Your task to perform on an android device: Clear the shopping cart on newegg. Add razer blade to the cart on newegg, then select checkout. Image 0: 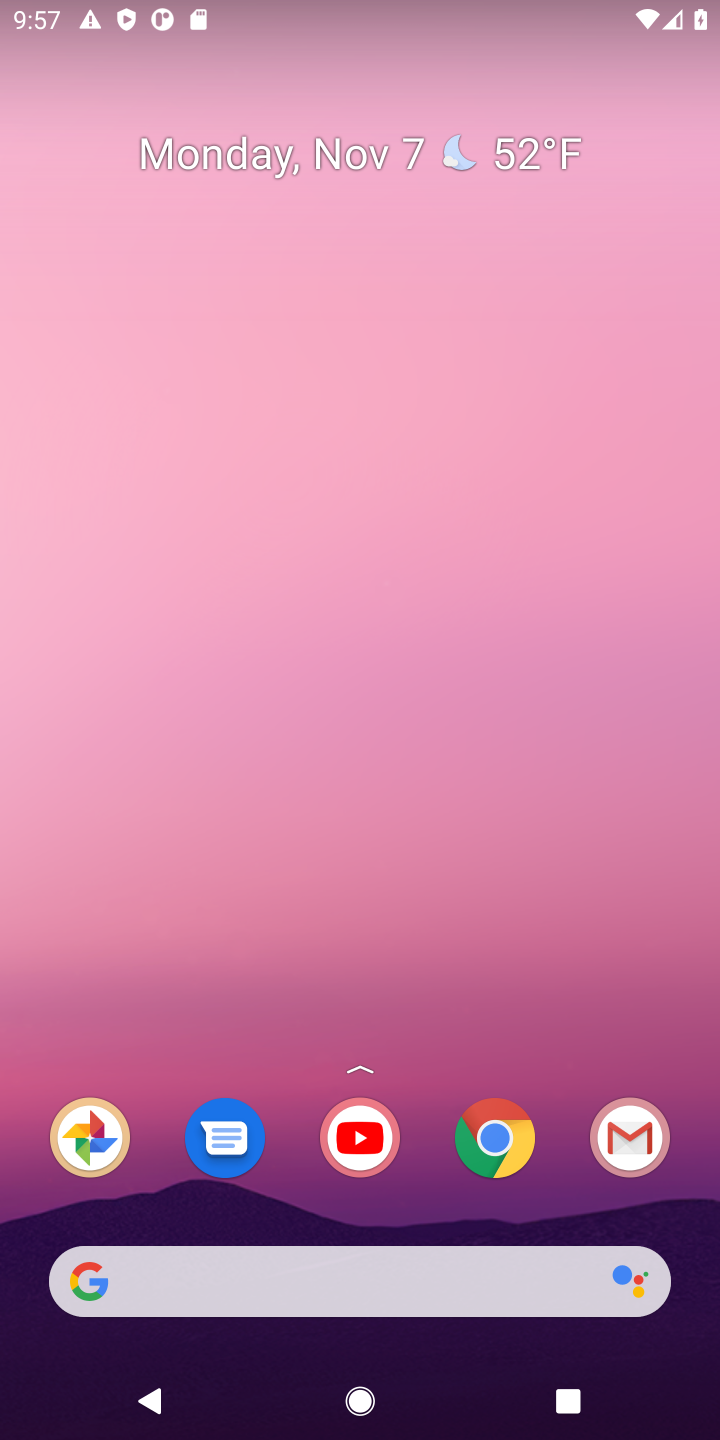
Step 0: drag from (432, 1210) to (357, 222)
Your task to perform on an android device: Clear the shopping cart on newegg. Add razer blade to the cart on newegg, then select checkout. Image 1: 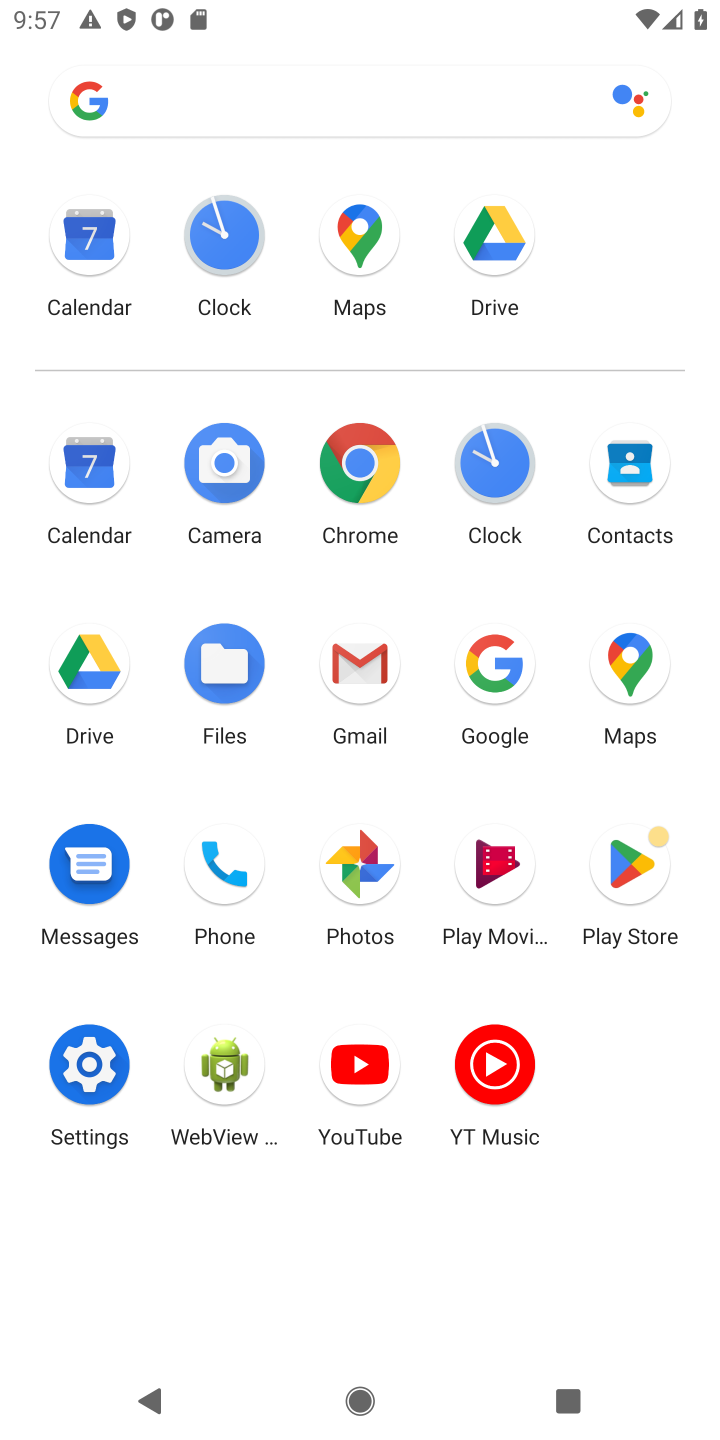
Step 1: click (356, 467)
Your task to perform on an android device: Clear the shopping cart on newegg. Add razer blade to the cart on newegg, then select checkout. Image 2: 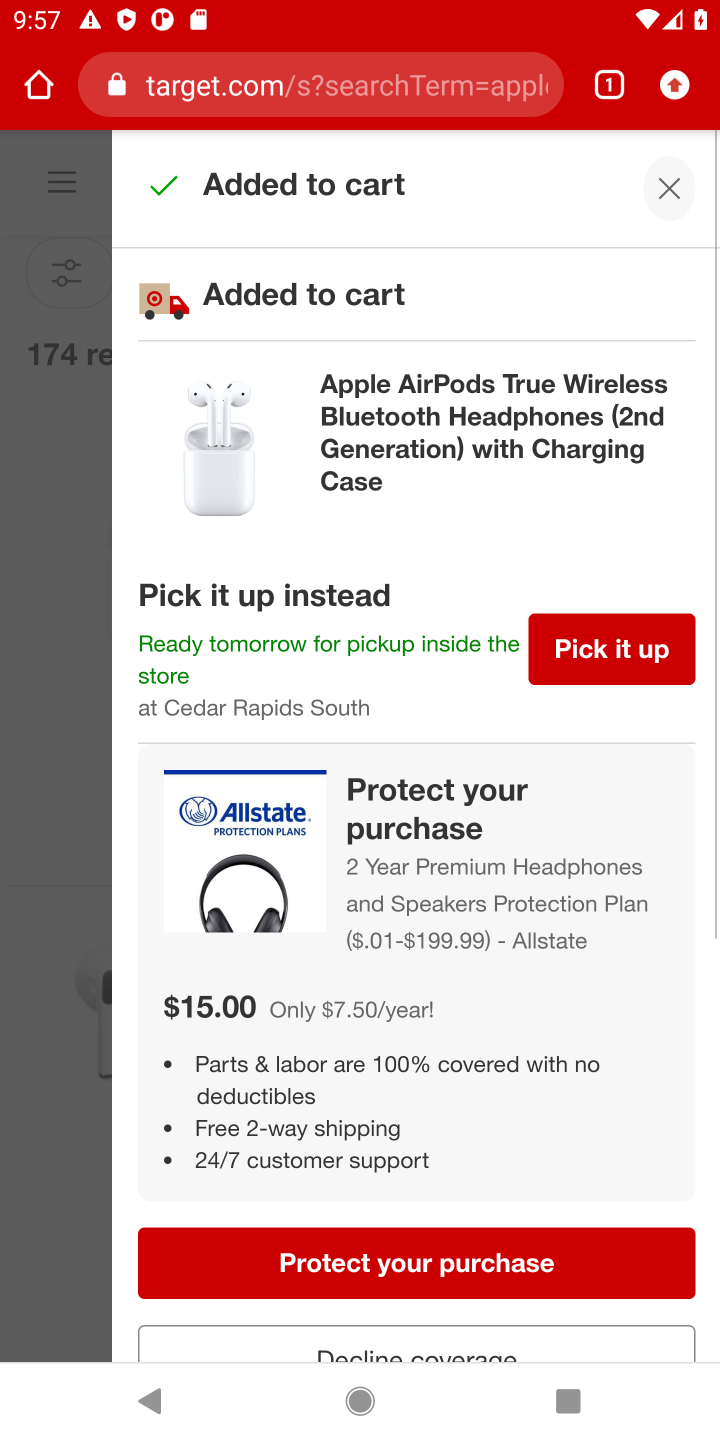
Step 2: click (398, 80)
Your task to perform on an android device: Clear the shopping cart on newegg. Add razer blade to the cart on newegg, then select checkout. Image 3: 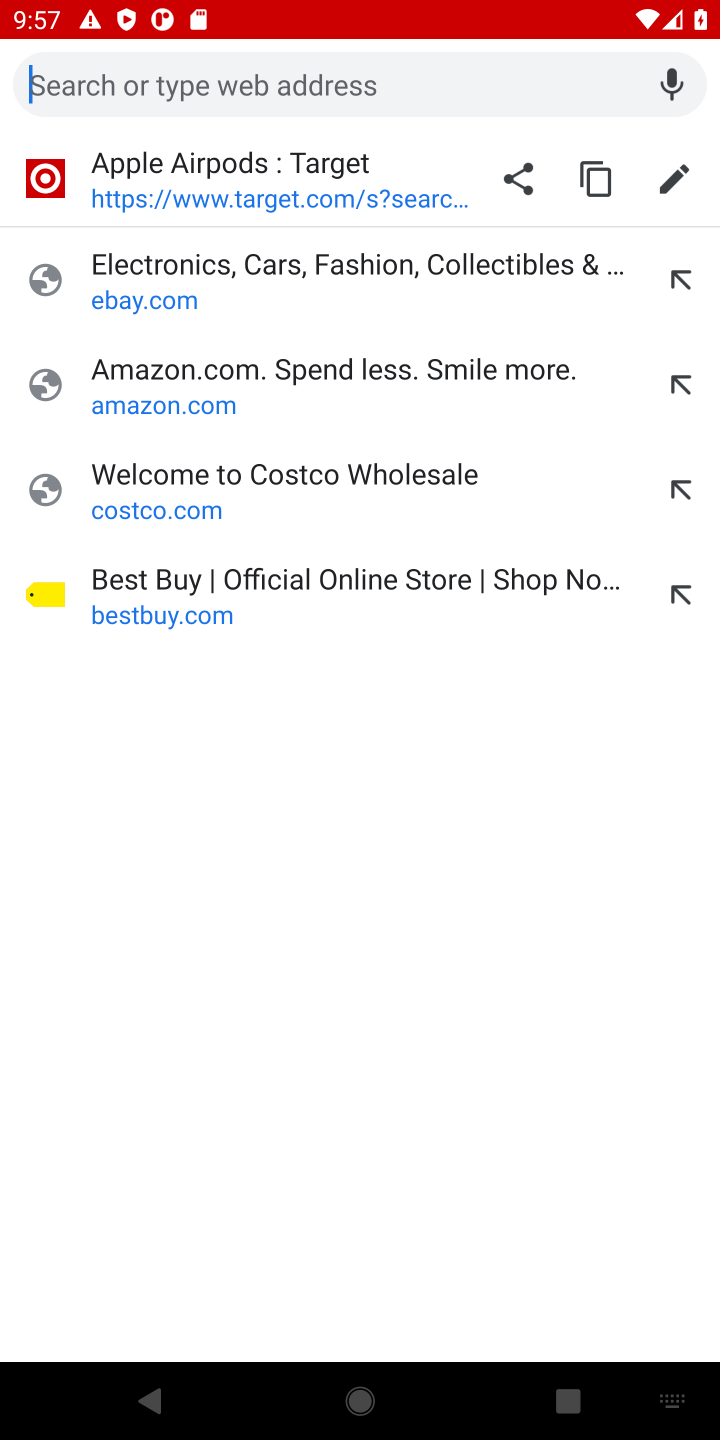
Step 3: type "newegg.com"
Your task to perform on an android device: Clear the shopping cart on newegg. Add razer blade to the cart on newegg, then select checkout. Image 4: 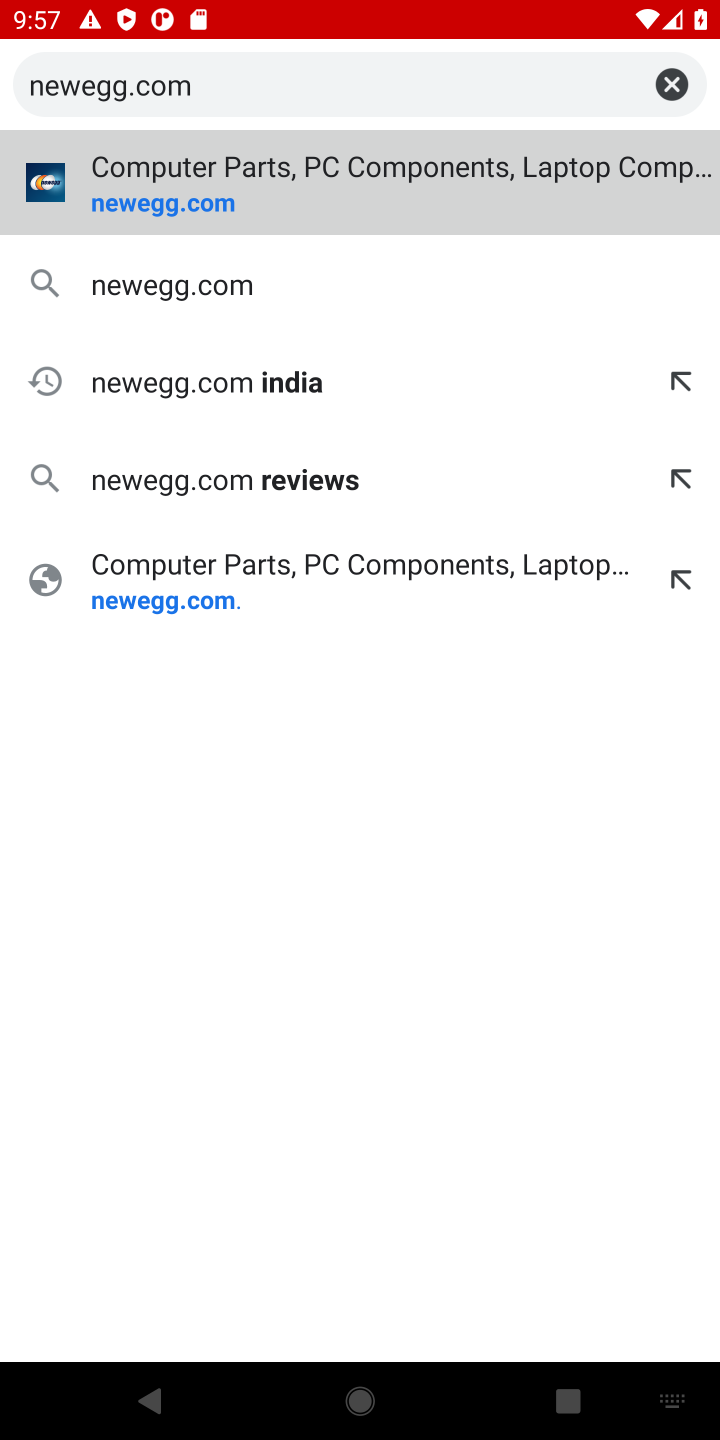
Step 4: press enter
Your task to perform on an android device: Clear the shopping cart on newegg. Add razer blade to the cart on newegg, then select checkout. Image 5: 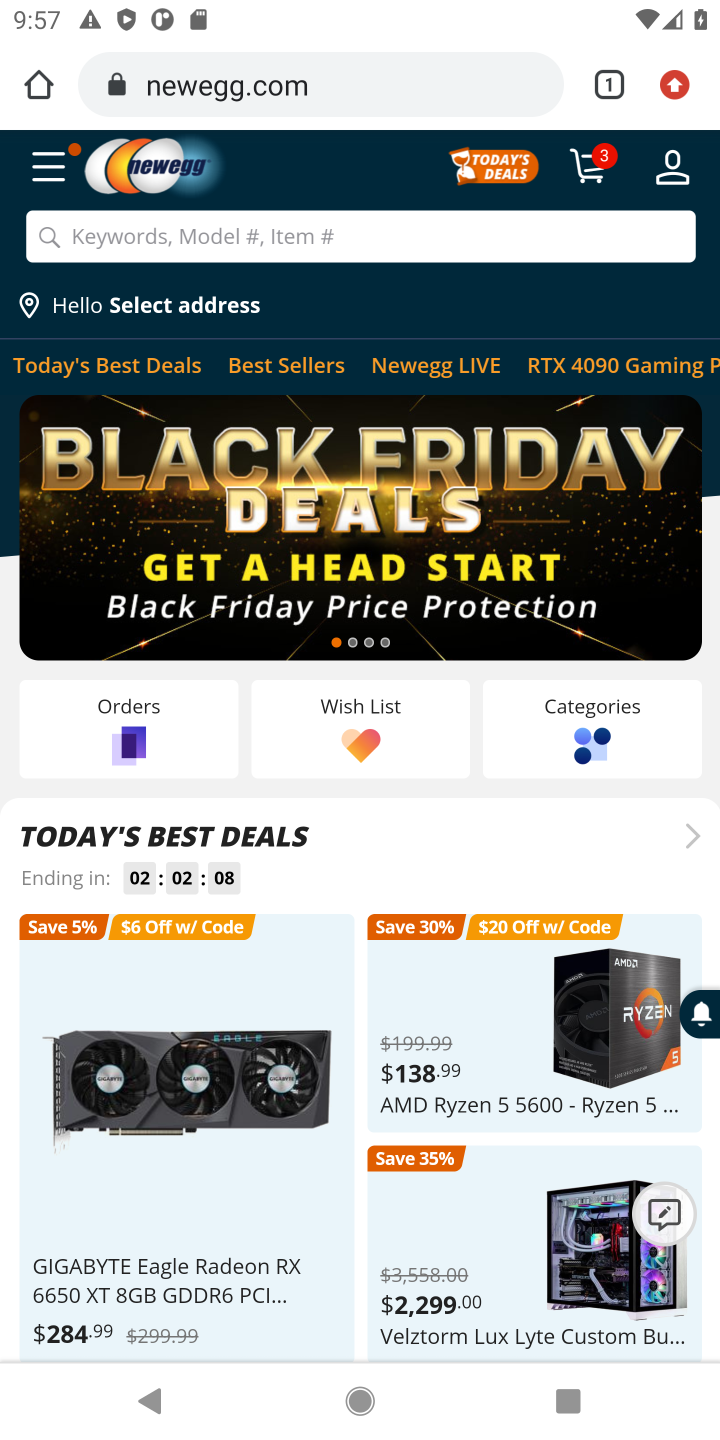
Step 5: click (615, 162)
Your task to perform on an android device: Clear the shopping cart on newegg. Add razer blade to the cart on newegg, then select checkout. Image 6: 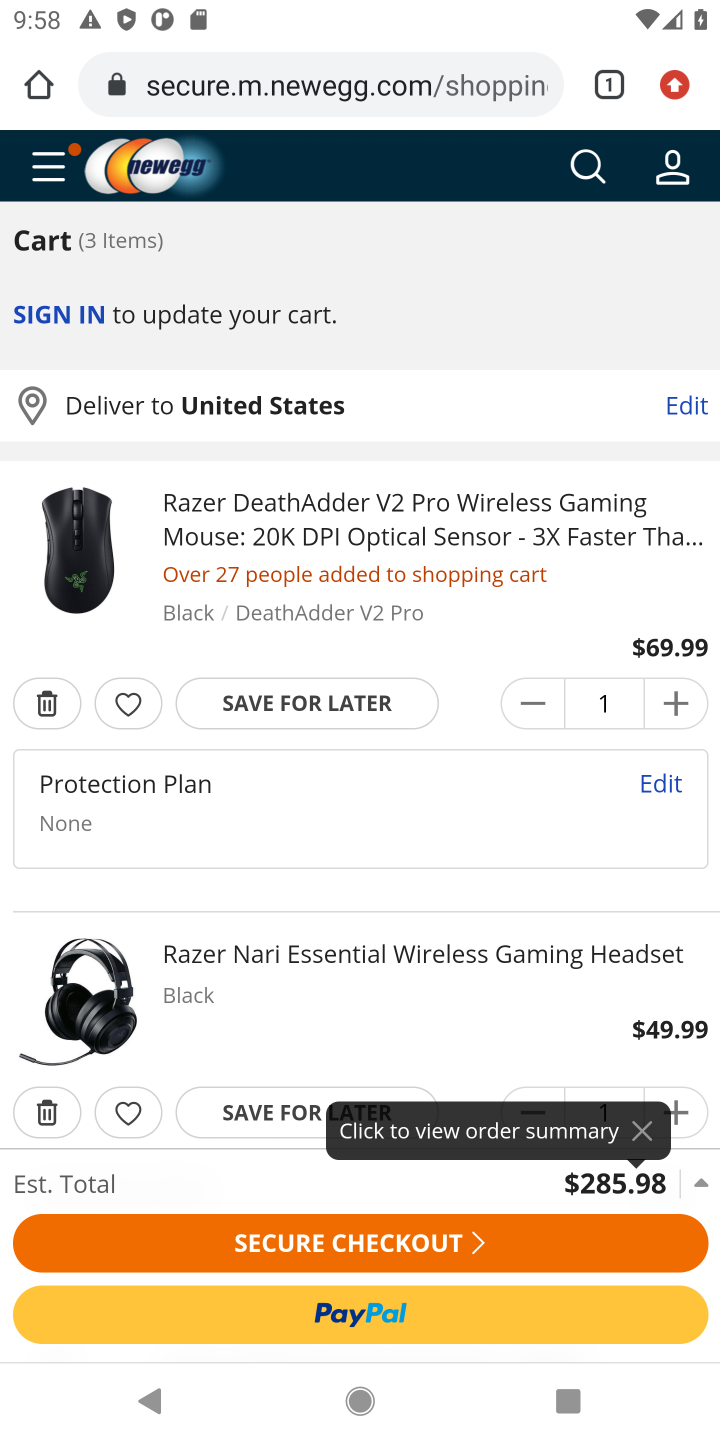
Step 6: click (50, 708)
Your task to perform on an android device: Clear the shopping cart on newegg. Add razer blade to the cart on newegg, then select checkout. Image 7: 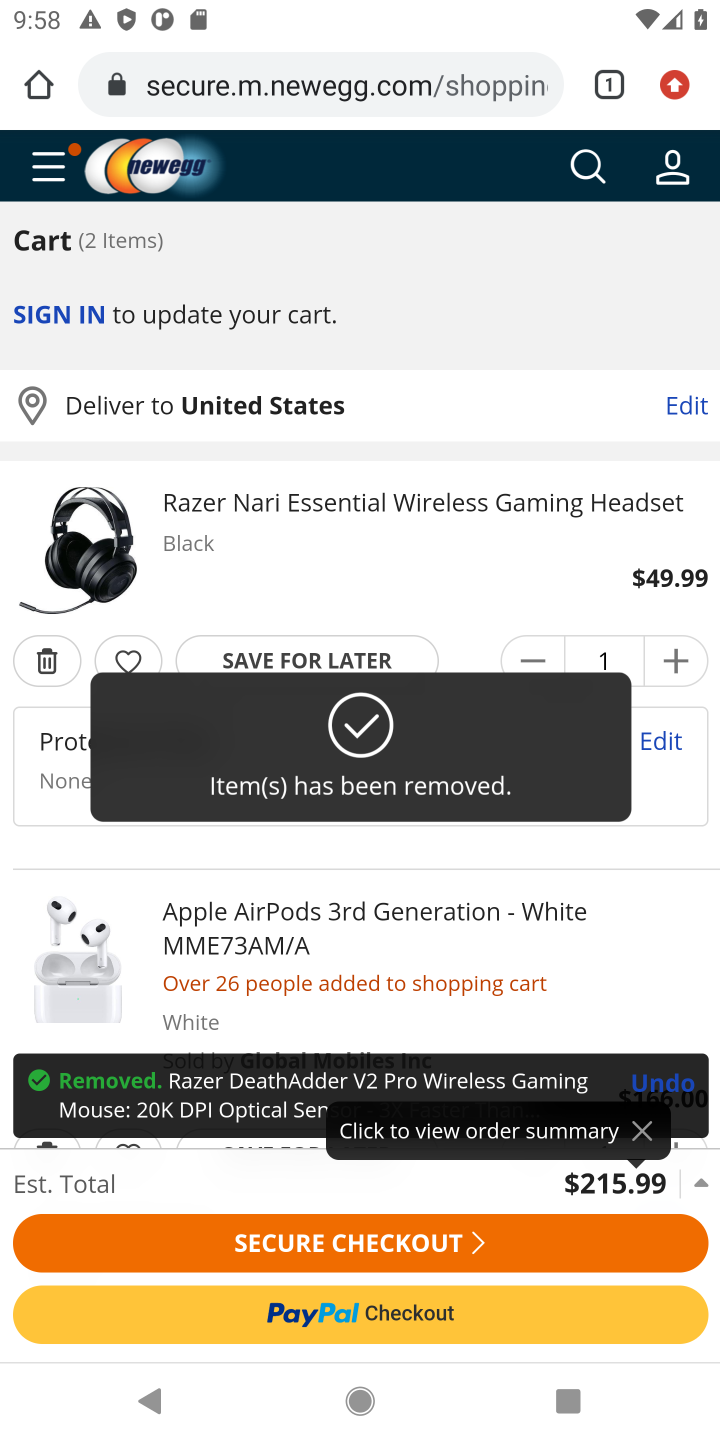
Step 7: click (42, 652)
Your task to perform on an android device: Clear the shopping cart on newegg. Add razer blade to the cart on newegg, then select checkout. Image 8: 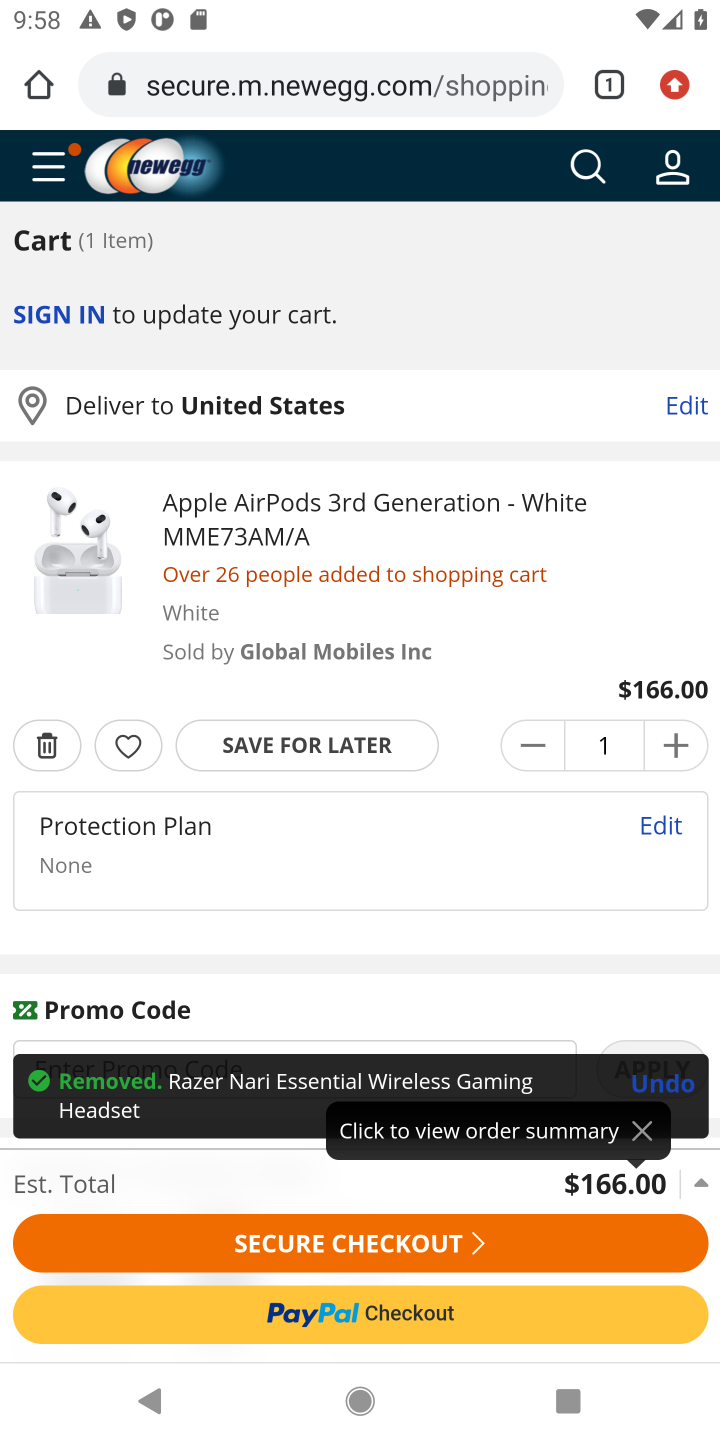
Step 8: click (55, 739)
Your task to perform on an android device: Clear the shopping cart on newegg. Add razer blade to the cart on newegg, then select checkout. Image 9: 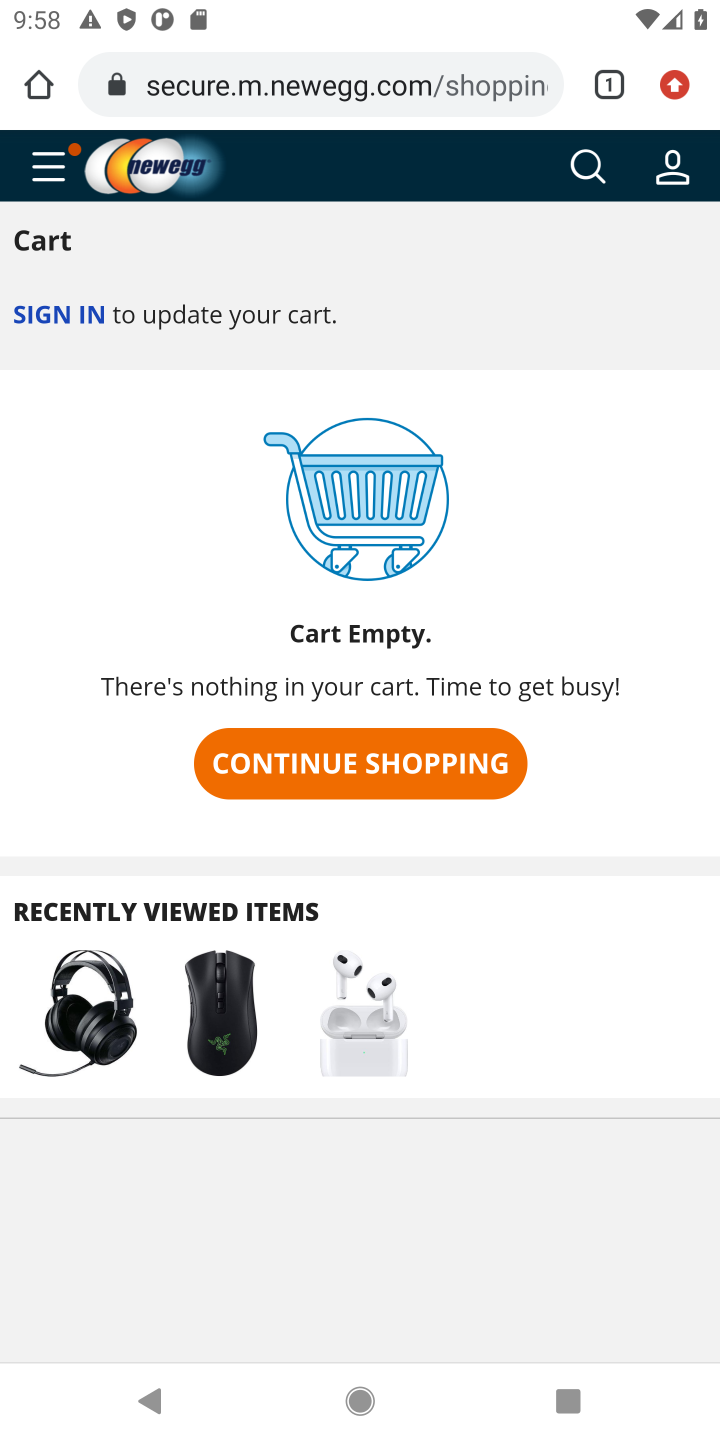
Step 9: click (593, 165)
Your task to perform on an android device: Clear the shopping cart on newegg. Add razer blade to the cart on newegg, then select checkout. Image 10: 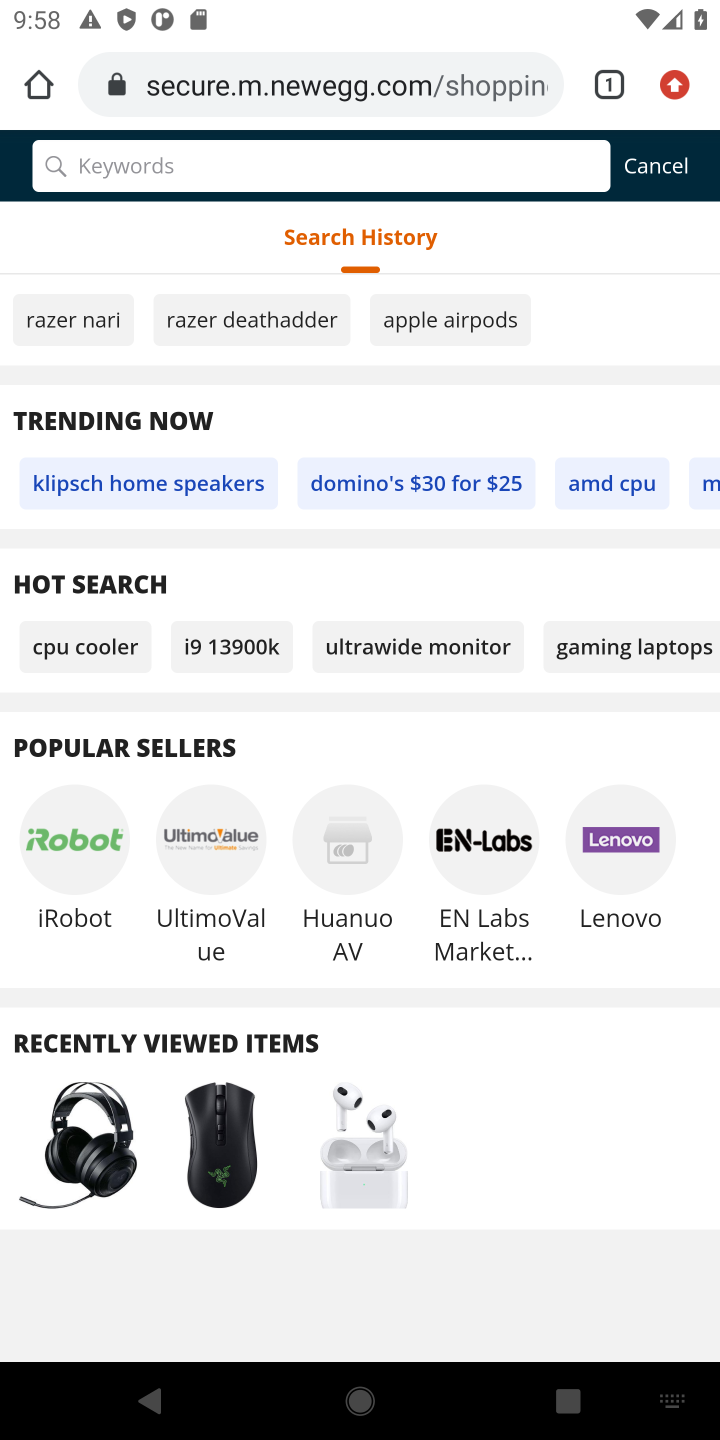
Step 10: type "razer blade"
Your task to perform on an android device: Clear the shopping cart on newegg. Add razer blade to the cart on newegg, then select checkout. Image 11: 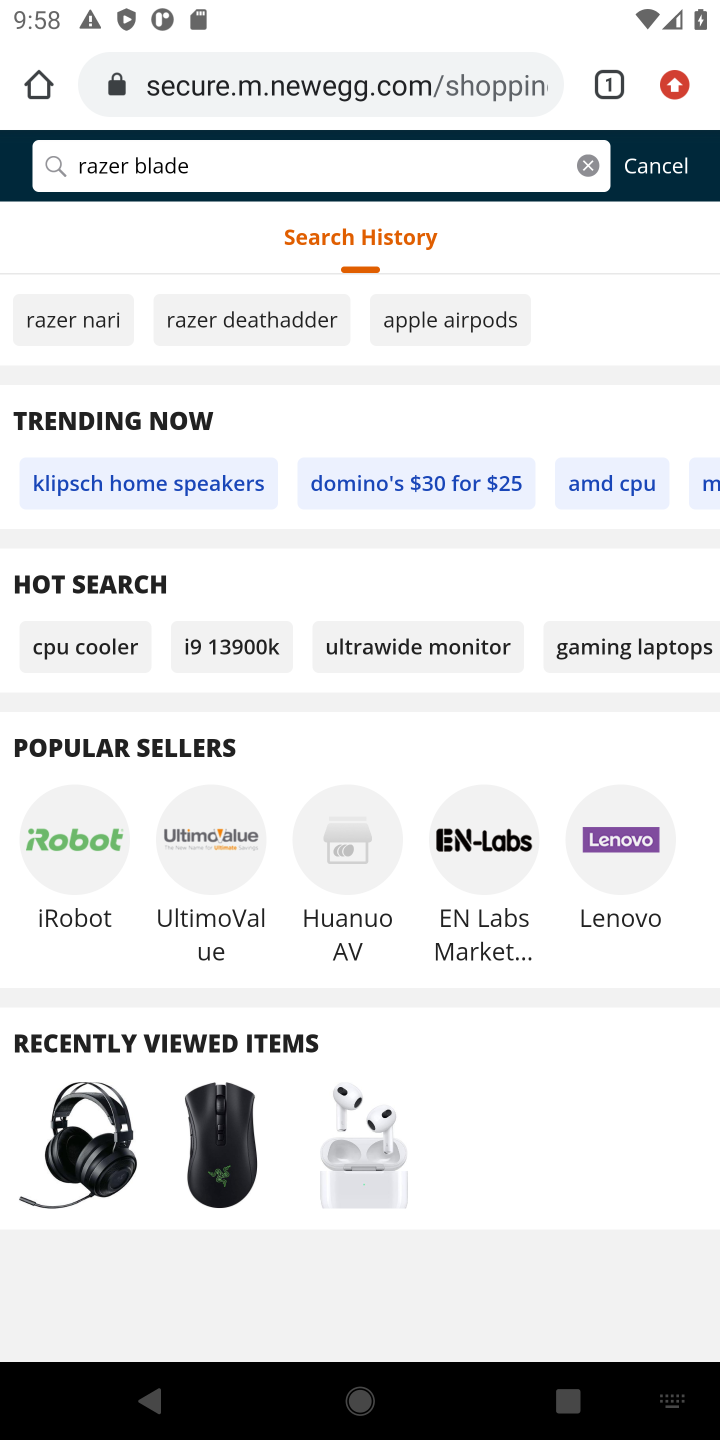
Step 11: press enter
Your task to perform on an android device: Clear the shopping cart on newegg. Add razer blade to the cart on newegg, then select checkout. Image 12: 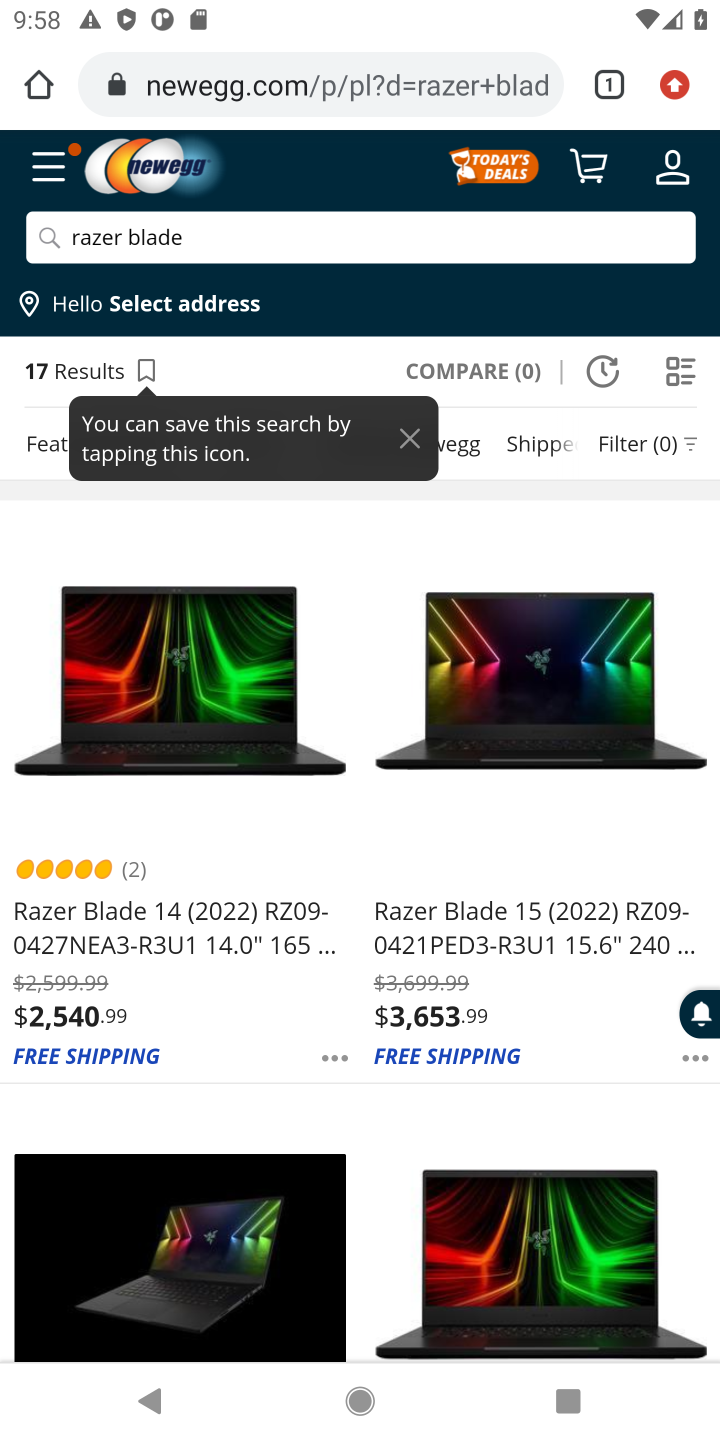
Step 12: click (203, 938)
Your task to perform on an android device: Clear the shopping cart on newegg. Add razer blade to the cart on newegg, then select checkout. Image 13: 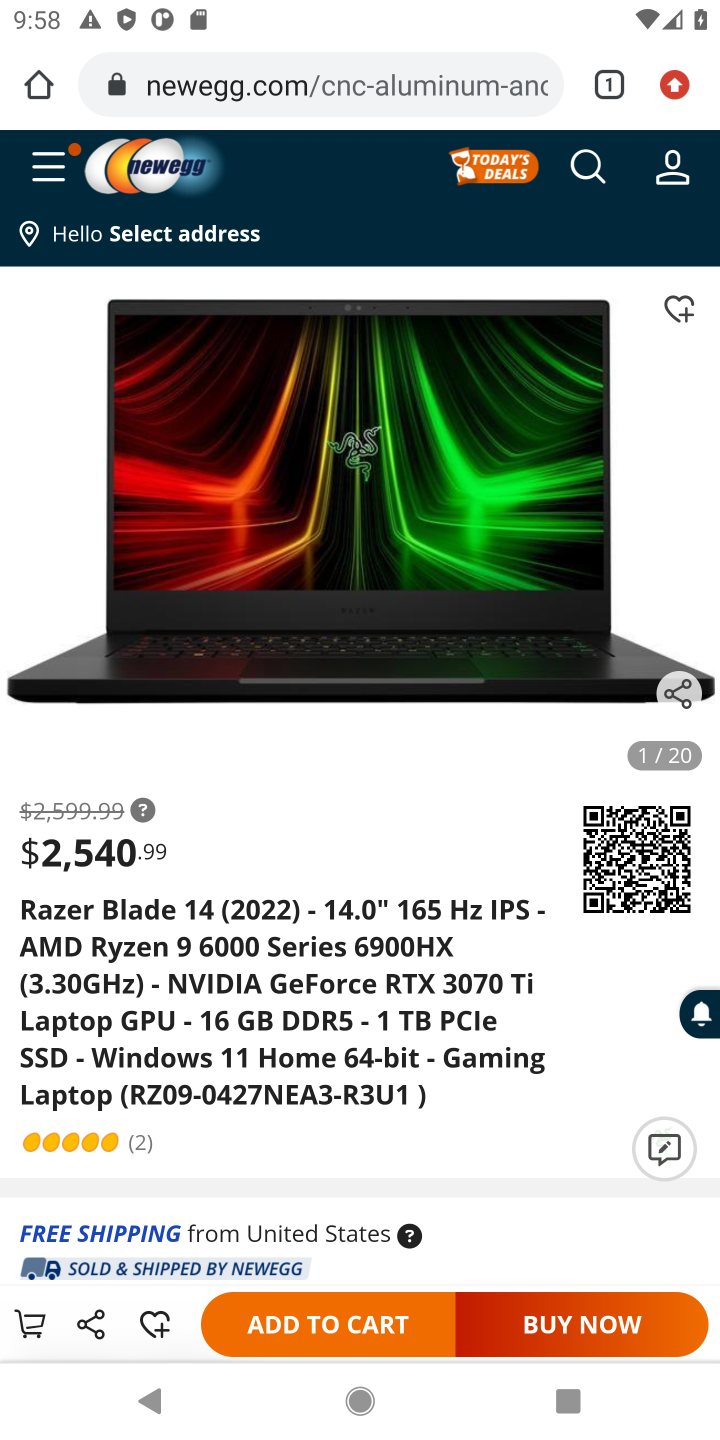
Step 13: click (352, 1329)
Your task to perform on an android device: Clear the shopping cart on newegg. Add razer blade to the cart on newegg, then select checkout. Image 14: 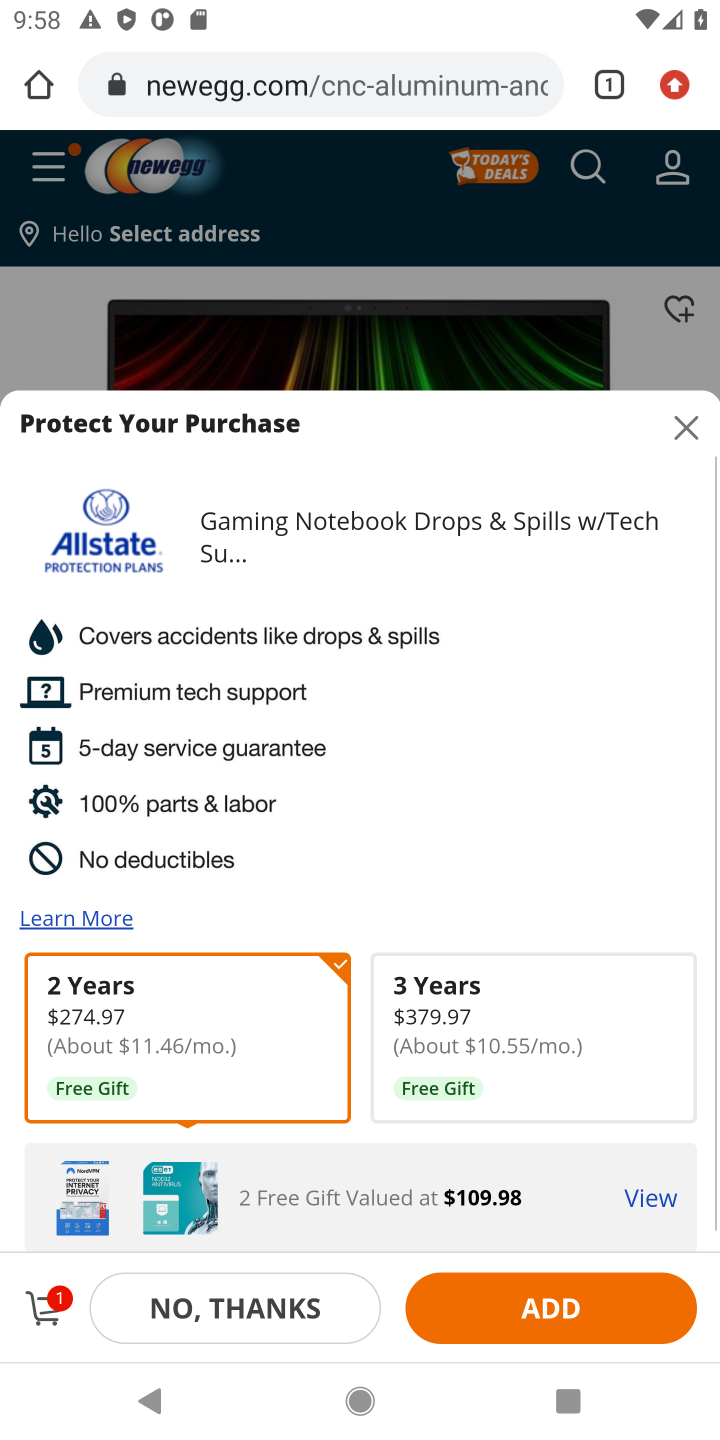
Step 14: click (42, 1307)
Your task to perform on an android device: Clear the shopping cart on newegg. Add razer blade to the cart on newegg, then select checkout. Image 15: 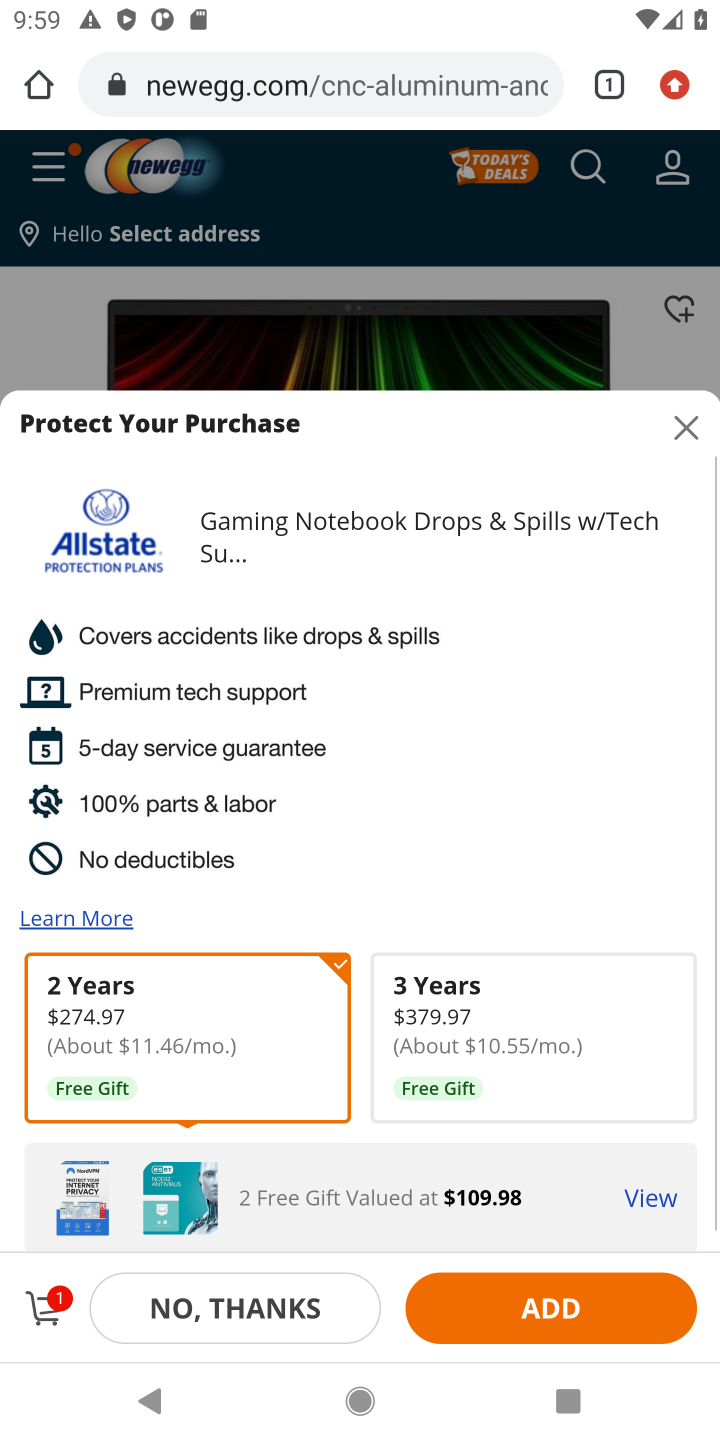
Step 15: click (35, 1302)
Your task to perform on an android device: Clear the shopping cart on newegg. Add razer blade to the cart on newegg, then select checkout. Image 16: 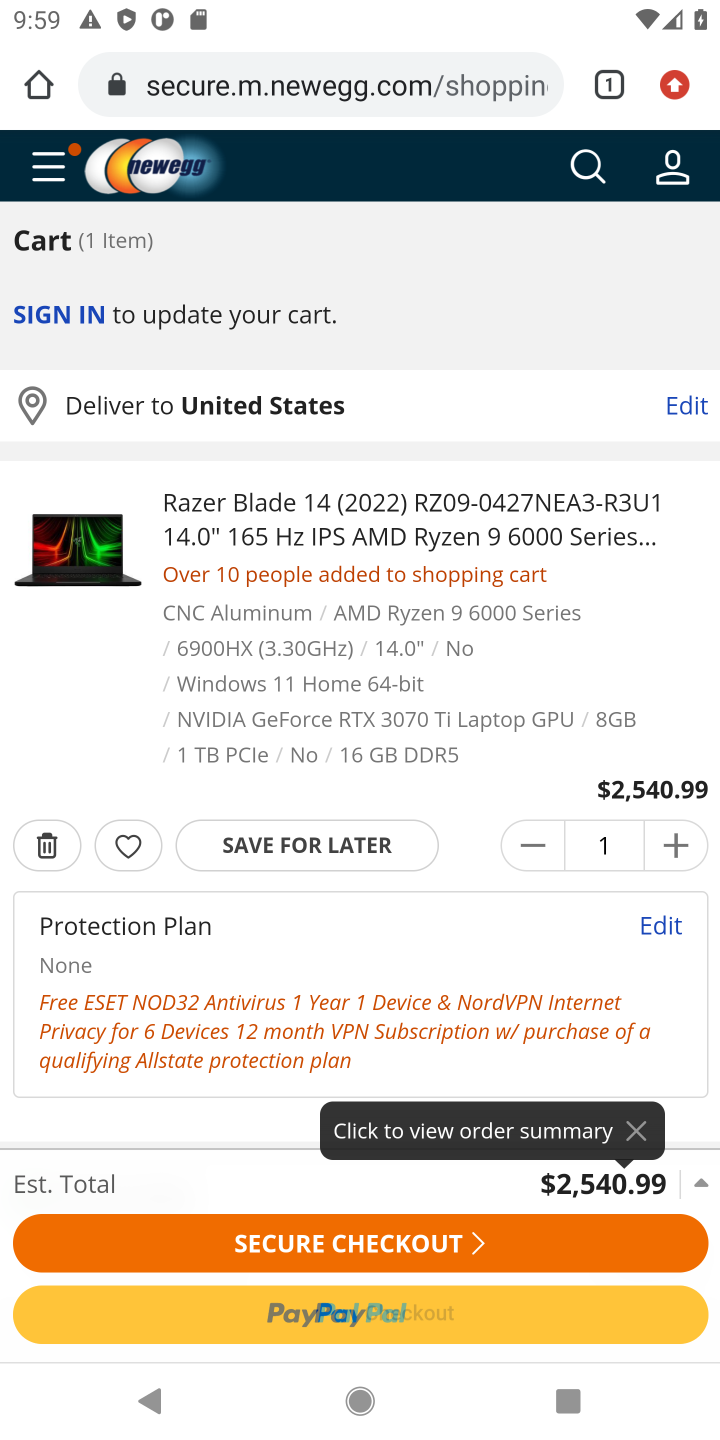
Step 16: click (318, 1234)
Your task to perform on an android device: Clear the shopping cart on newegg. Add razer blade to the cart on newegg, then select checkout. Image 17: 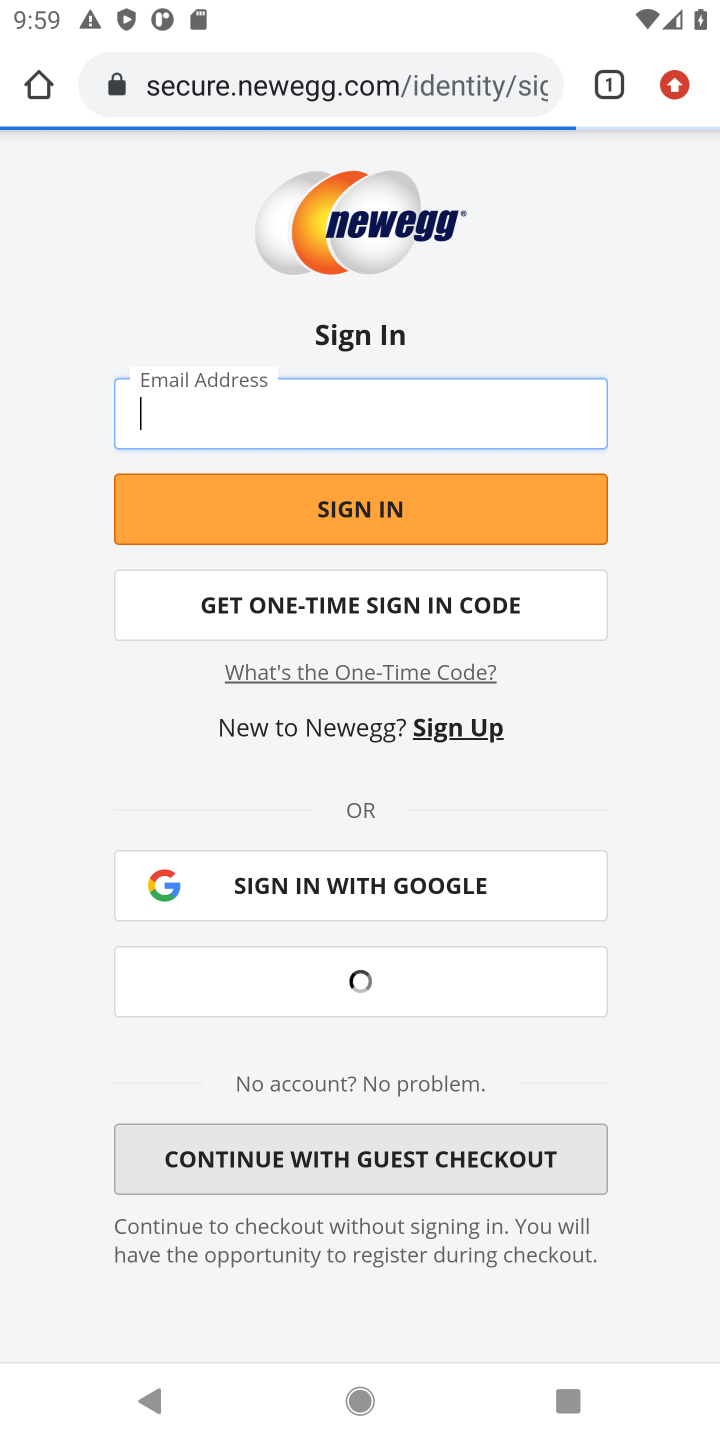
Step 17: task complete